Your task to perform on an android device: Open calendar and show me the first week of next month Image 0: 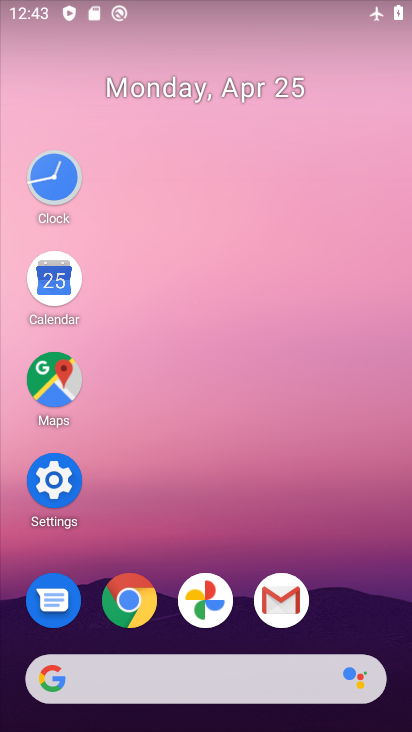
Step 0: click (55, 279)
Your task to perform on an android device: Open calendar and show me the first week of next month Image 1: 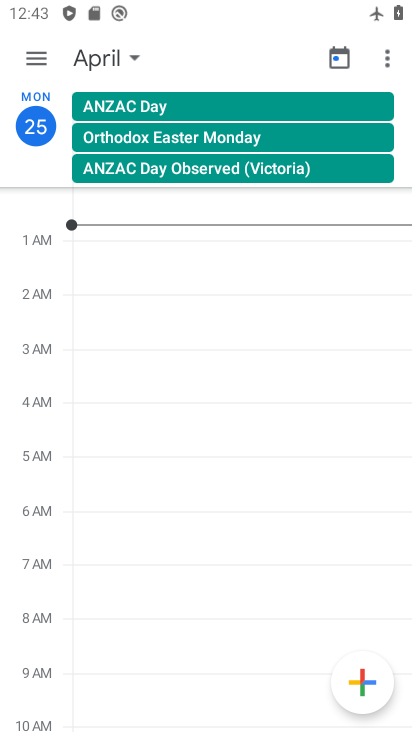
Step 1: click (41, 49)
Your task to perform on an android device: Open calendar and show me the first week of next month Image 2: 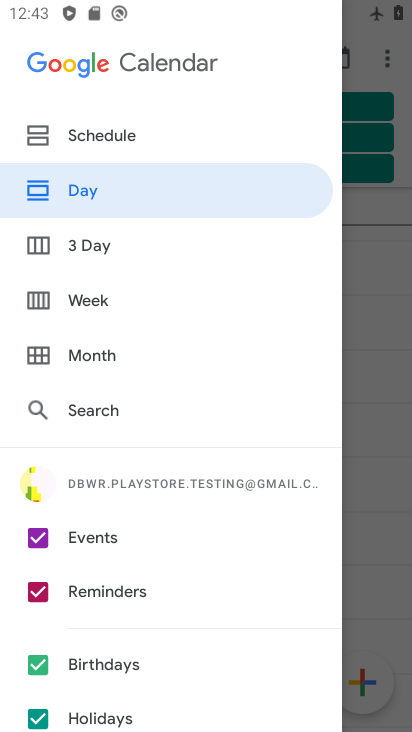
Step 2: click (90, 292)
Your task to perform on an android device: Open calendar and show me the first week of next month Image 3: 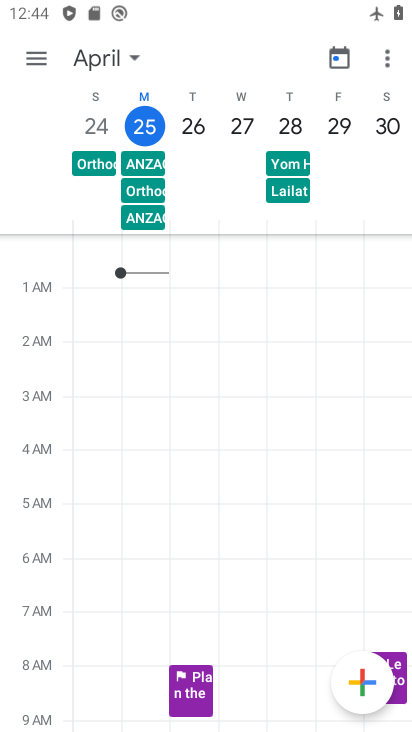
Step 3: click (128, 53)
Your task to perform on an android device: Open calendar and show me the first week of next month Image 4: 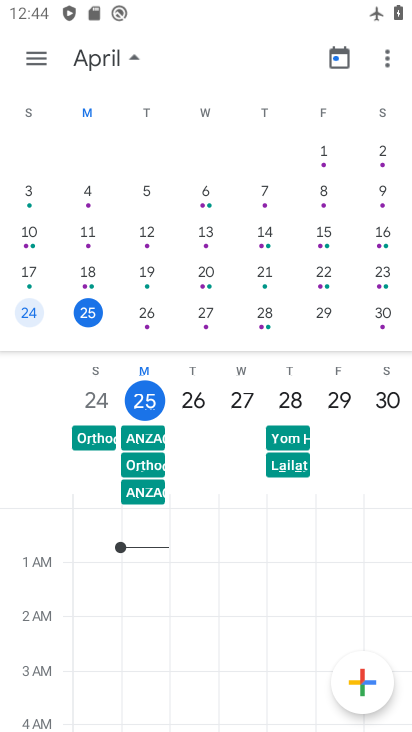
Step 4: drag from (363, 211) to (24, 197)
Your task to perform on an android device: Open calendar and show me the first week of next month Image 5: 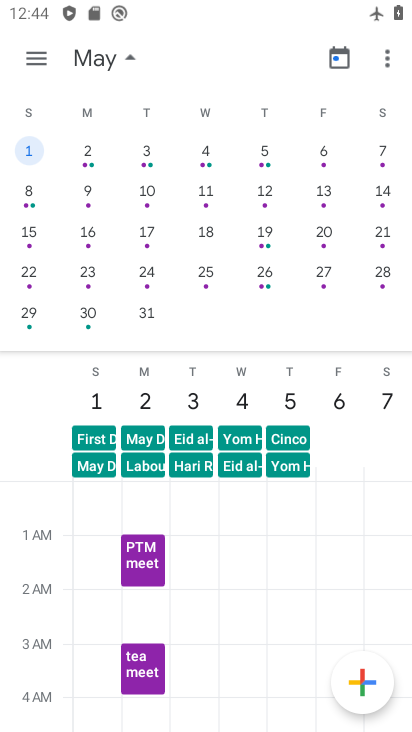
Step 5: click (140, 156)
Your task to perform on an android device: Open calendar and show me the first week of next month Image 6: 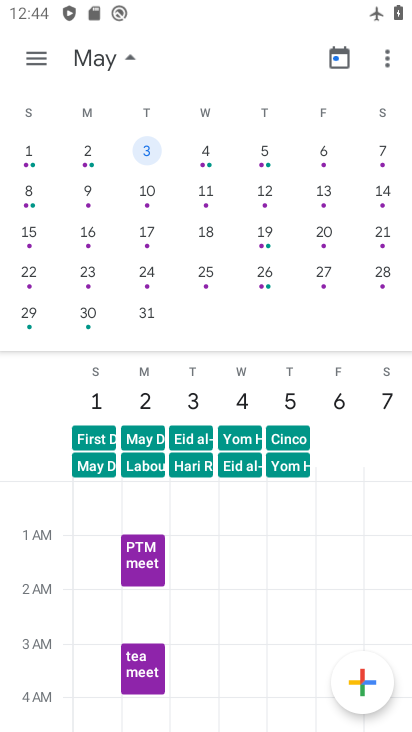
Step 6: task complete